Your task to perform on an android device: see sites visited before in the chrome app Image 0: 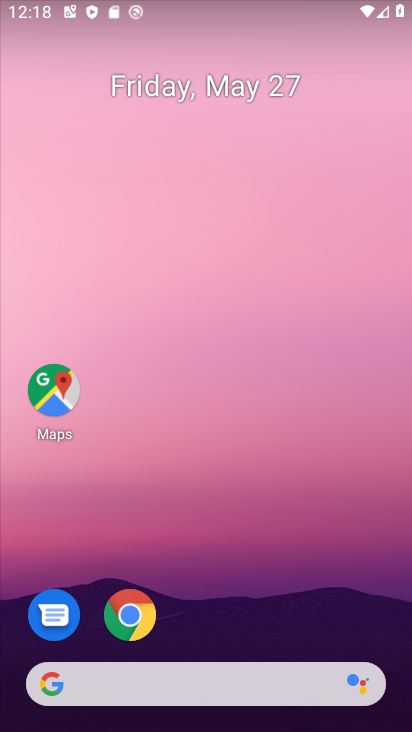
Step 0: drag from (201, 518) to (261, 34)
Your task to perform on an android device: see sites visited before in the chrome app Image 1: 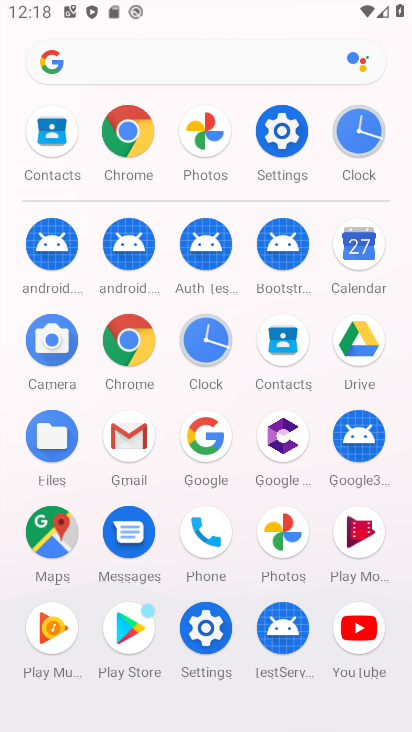
Step 1: click (142, 347)
Your task to perform on an android device: see sites visited before in the chrome app Image 2: 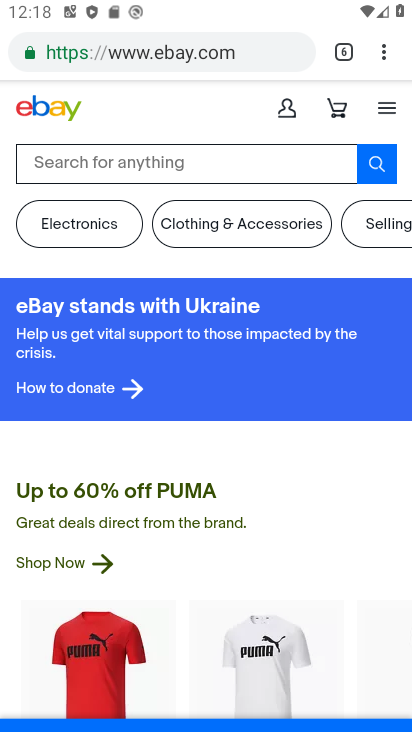
Step 2: task complete